Your task to perform on an android device: Clear the shopping cart on newegg.com. Search for "logitech g933" on newegg.com, select the first entry, add it to the cart, then select checkout. Image 0: 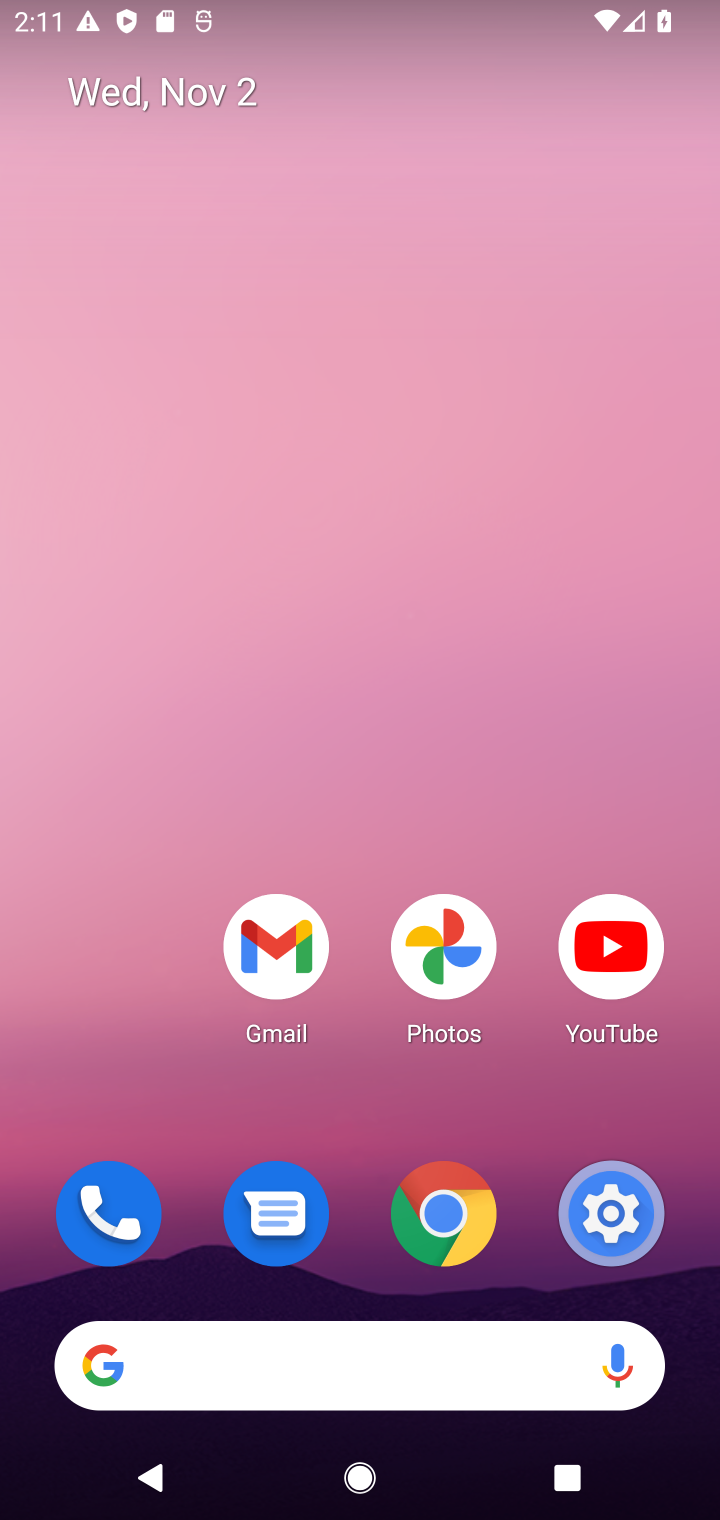
Step 0: click (449, 1223)
Your task to perform on an android device: Clear the shopping cart on newegg.com. Search for "logitech g933" on newegg.com, select the first entry, add it to the cart, then select checkout. Image 1: 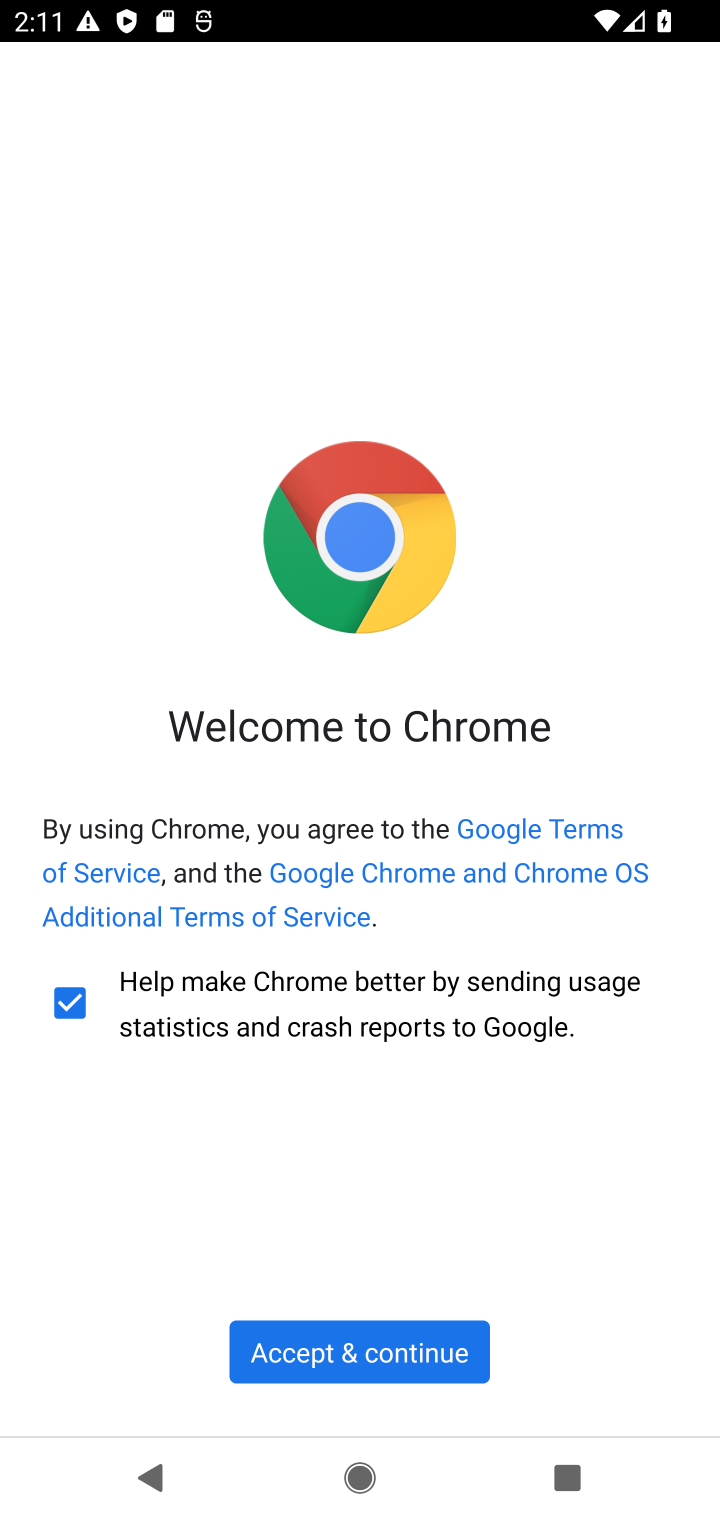
Step 1: click (357, 1358)
Your task to perform on an android device: Clear the shopping cart on newegg.com. Search for "logitech g933" on newegg.com, select the first entry, add it to the cart, then select checkout. Image 2: 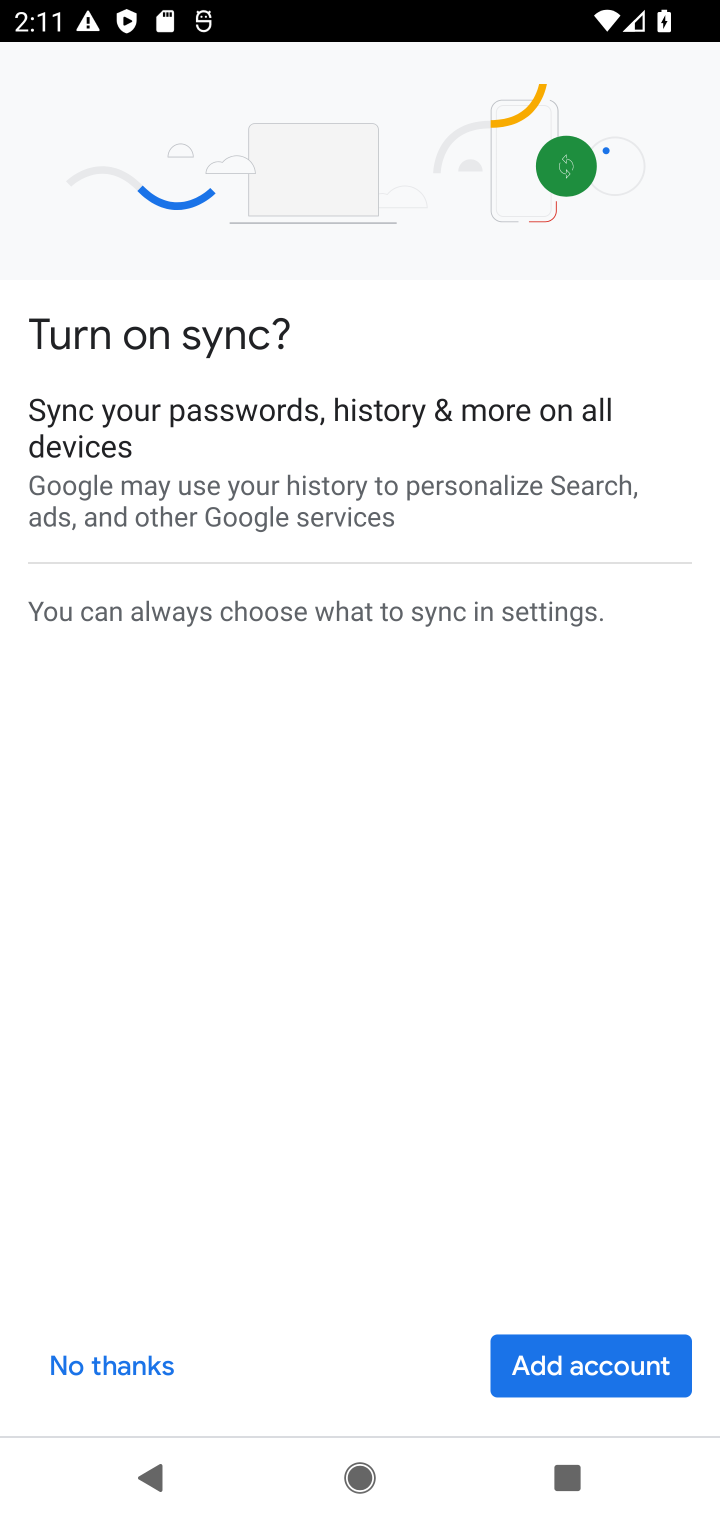
Step 2: click (94, 1368)
Your task to perform on an android device: Clear the shopping cart on newegg.com. Search for "logitech g933" on newegg.com, select the first entry, add it to the cart, then select checkout. Image 3: 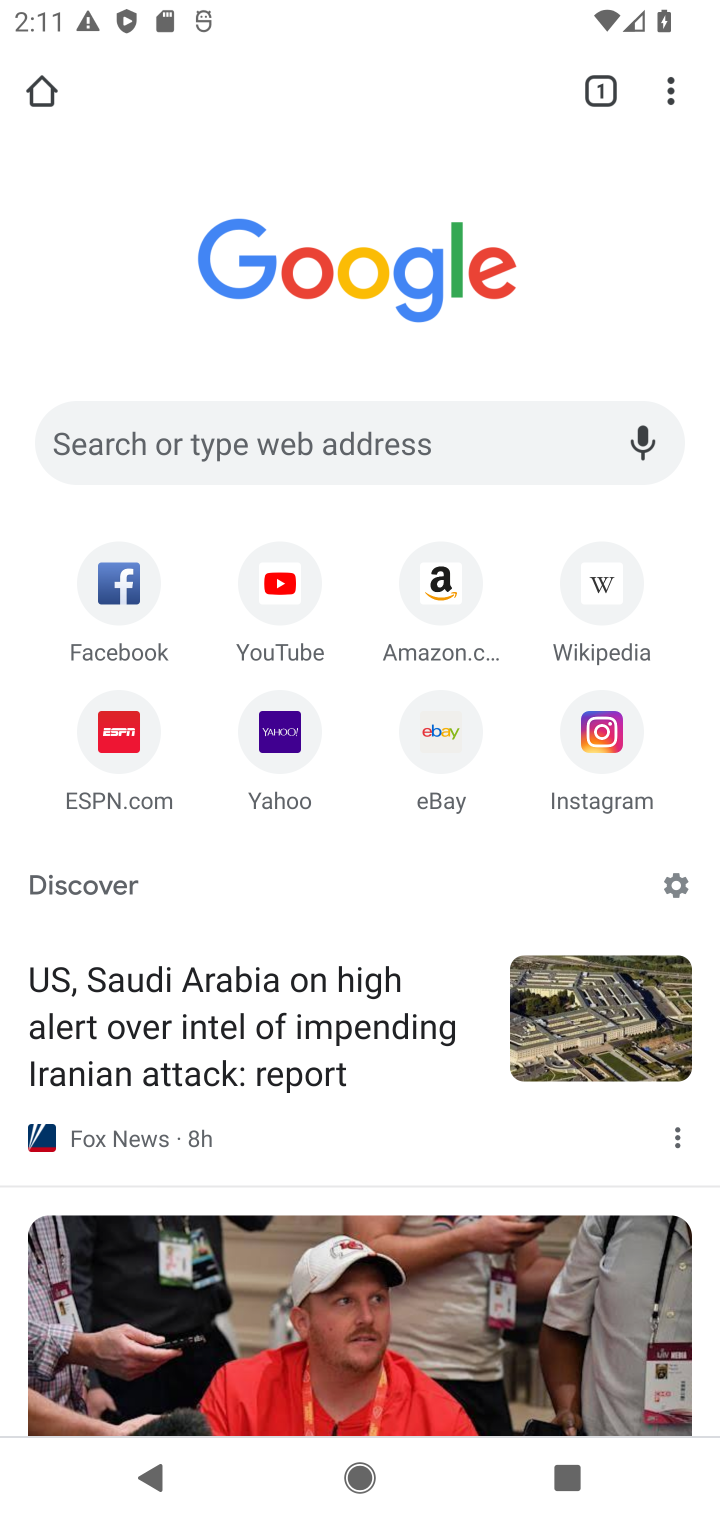
Step 3: click (334, 438)
Your task to perform on an android device: Clear the shopping cart on newegg.com. Search for "logitech g933" on newegg.com, select the first entry, add it to the cart, then select checkout. Image 4: 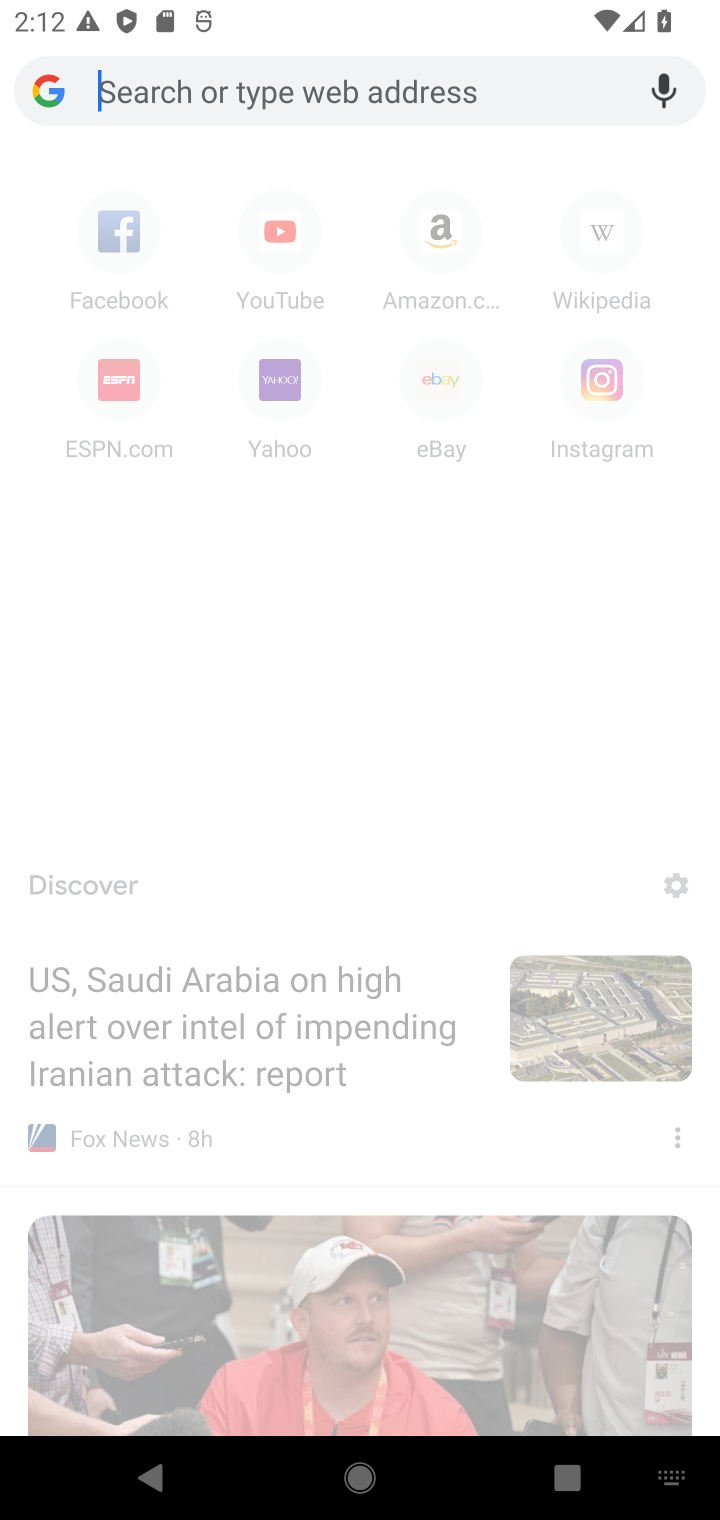
Step 4: type "newegg.com"
Your task to perform on an android device: Clear the shopping cart on newegg.com. Search for "logitech g933" on newegg.com, select the first entry, add it to the cart, then select checkout. Image 5: 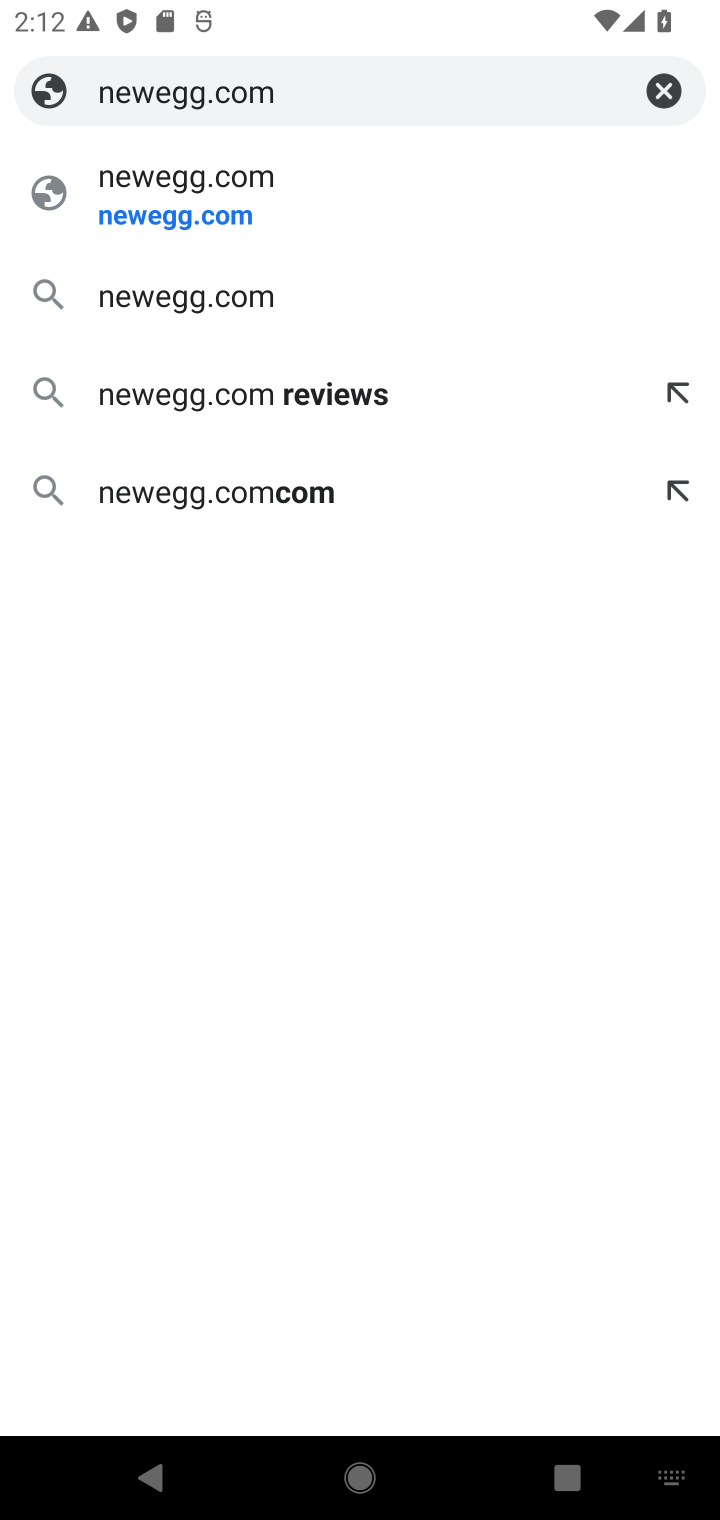
Step 5: click (238, 182)
Your task to perform on an android device: Clear the shopping cart on newegg.com. Search for "logitech g933" on newegg.com, select the first entry, add it to the cart, then select checkout. Image 6: 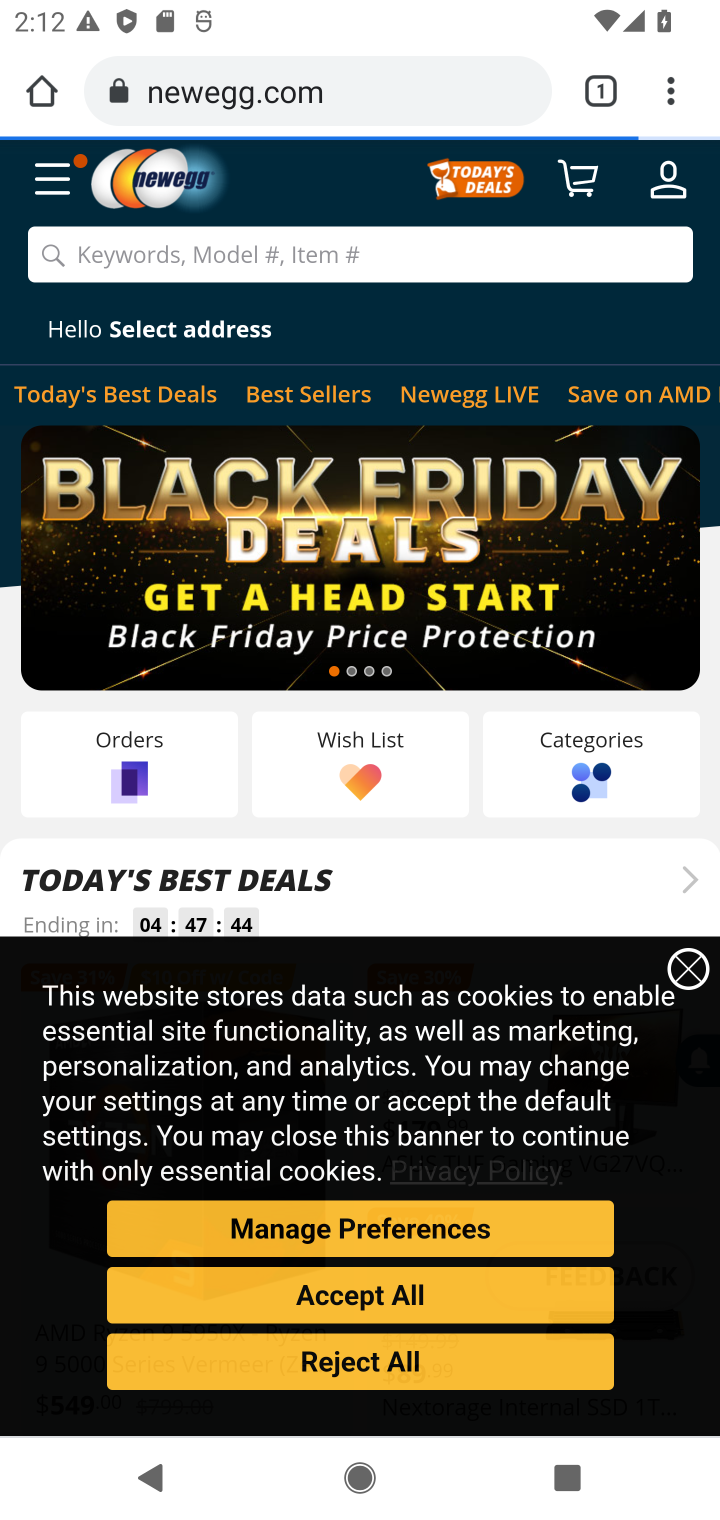
Step 6: click (576, 187)
Your task to perform on an android device: Clear the shopping cart on newegg.com. Search for "logitech g933" on newegg.com, select the first entry, add it to the cart, then select checkout. Image 7: 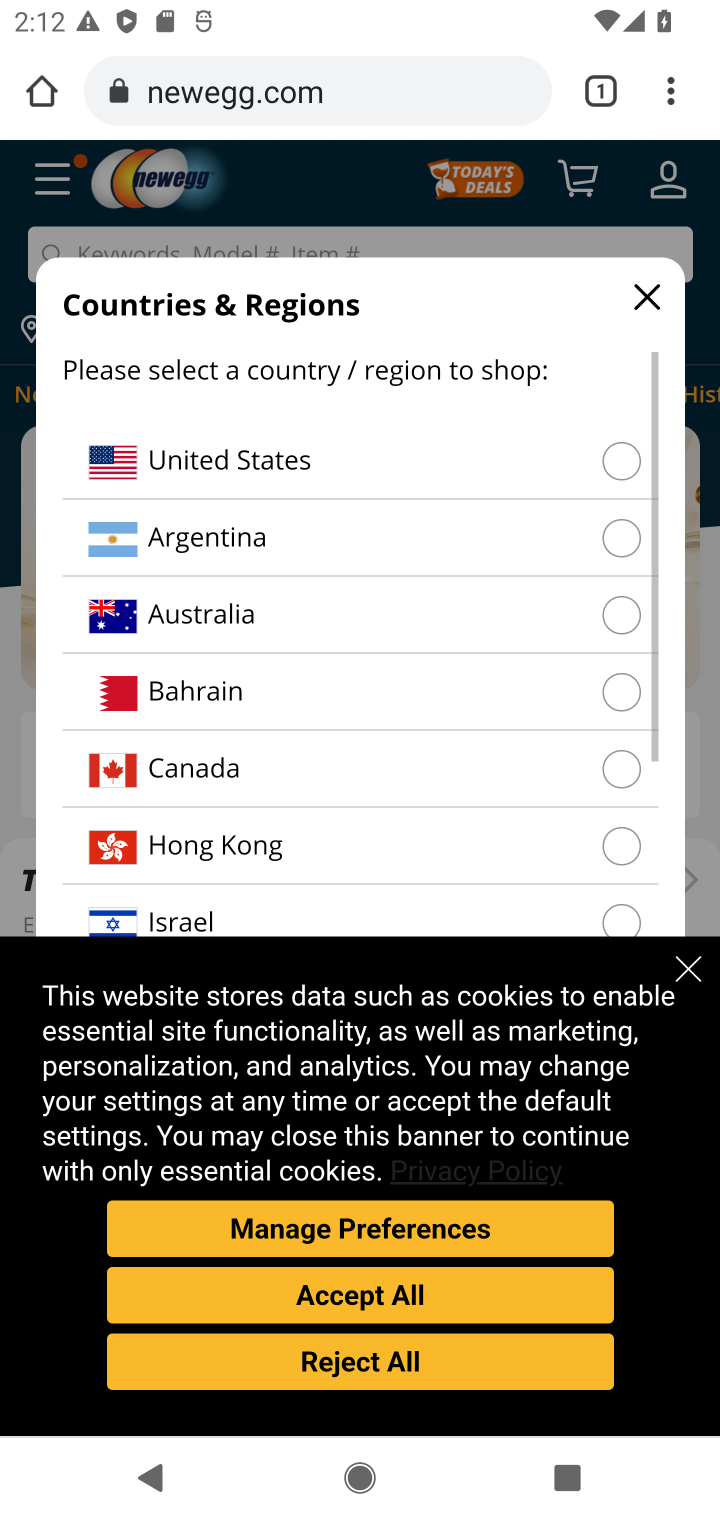
Step 7: click (653, 304)
Your task to perform on an android device: Clear the shopping cart on newegg.com. Search for "logitech g933" on newegg.com, select the first entry, add it to the cart, then select checkout. Image 8: 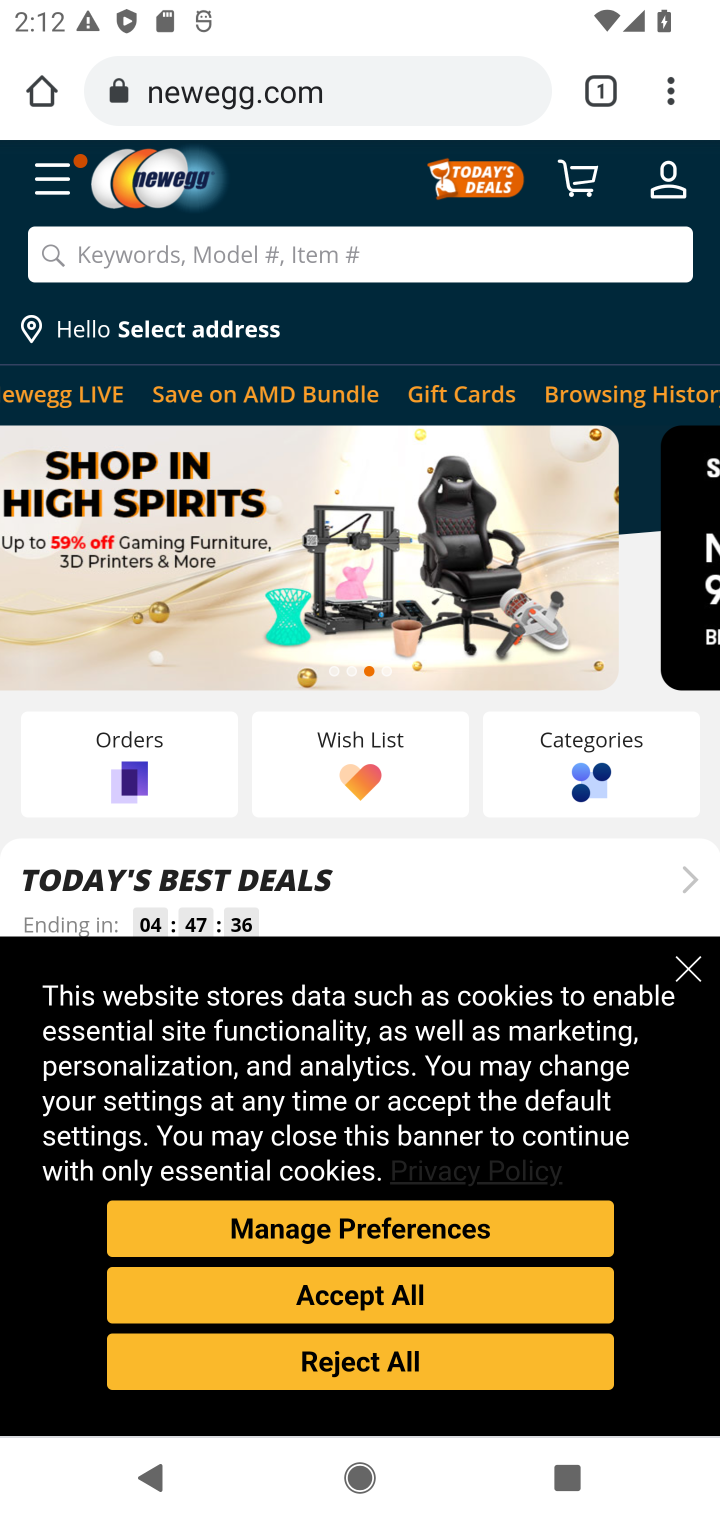
Step 8: click (412, 1299)
Your task to perform on an android device: Clear the shopping cart on newegg.com. Search for "logitech g933" on newegg.com, select the first entry, add it to the cart, then select checkout. Image 9: 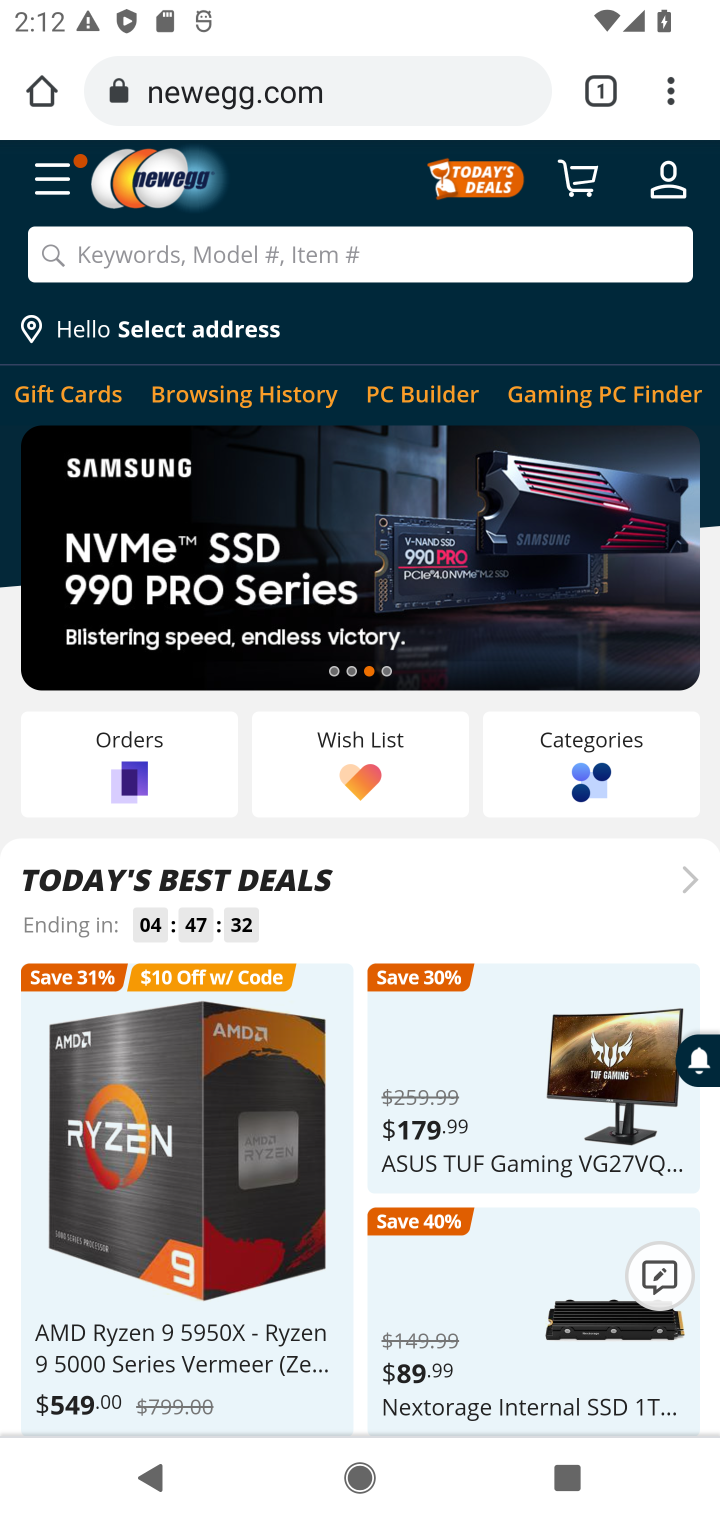
Step 9: click (580, 185)
Your task to perform on an android device: Clear the shopping cart on newegg.com. Search for "logitech g933" on newegg.com, select the first entry, add it to the cart, then select checkout. Image 10: 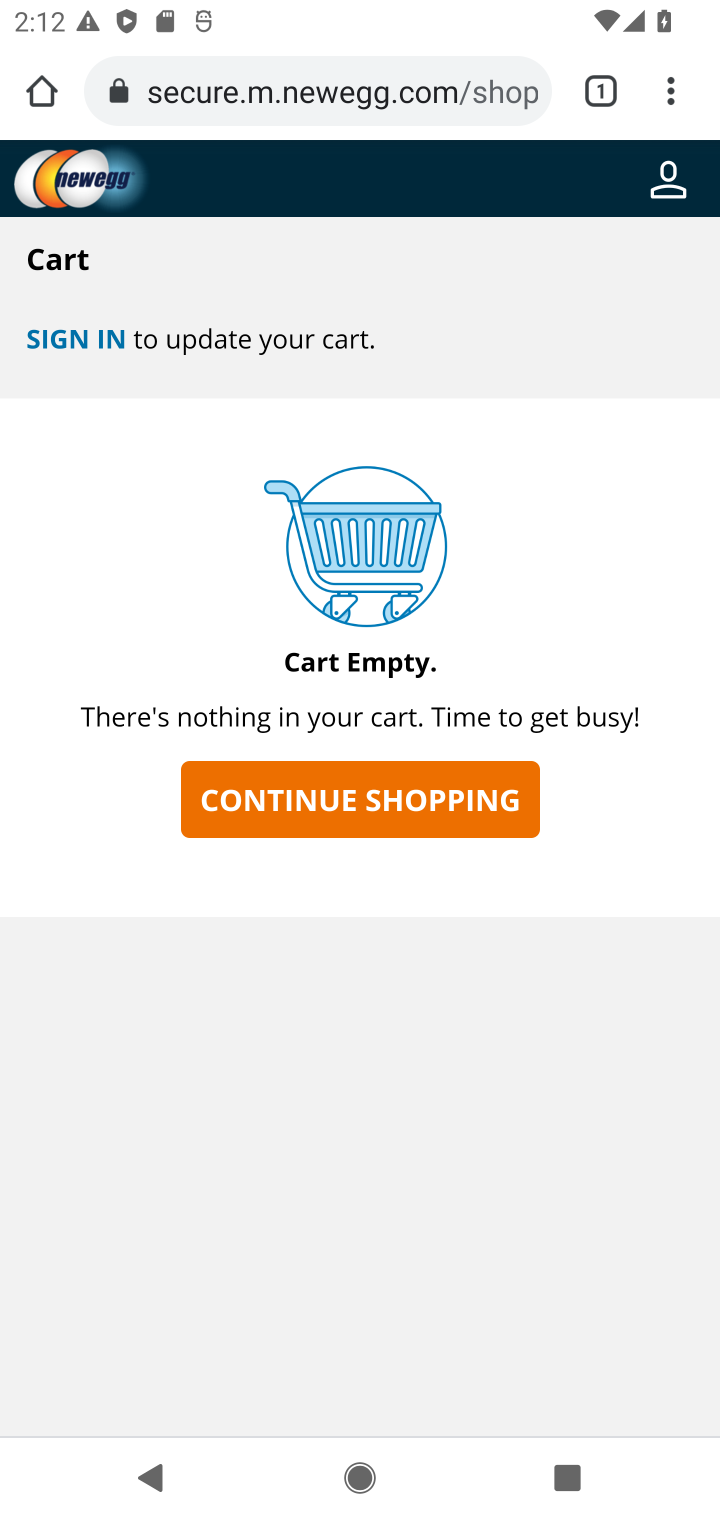
Step 10: click (285, 809)
Your task to perform on an android device: Clear the shopping cart on newegg.com. Search for "logitech g933" on newegg.com, select the first entry, add it to the cart, then select checkout. Image 11: 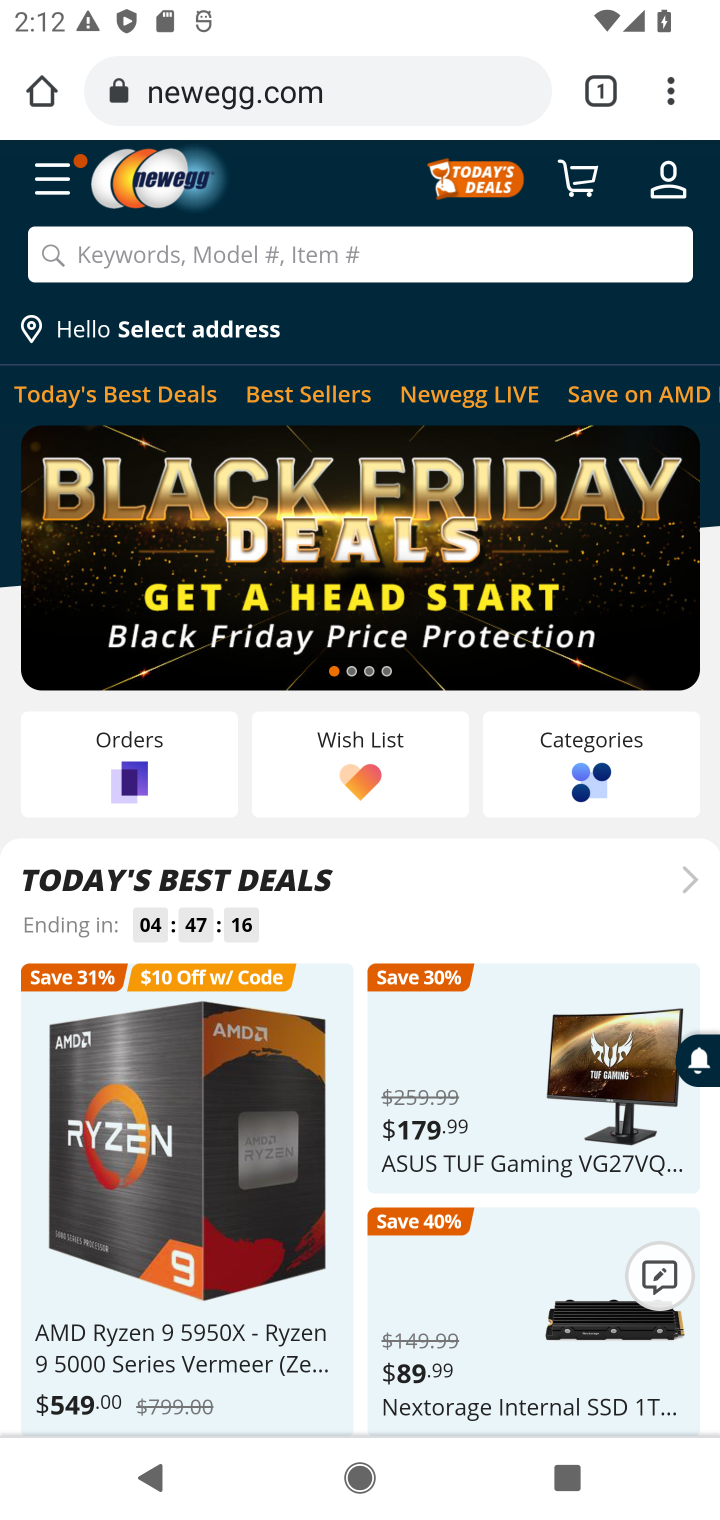
Step 11: click (328, 256)
Your task to perform on an android device: Clear the shopping cart on newegg.com. Search for "logitech g933" on newegg.com, select the first entry, add it to the cart, then select checkout. Image 12: 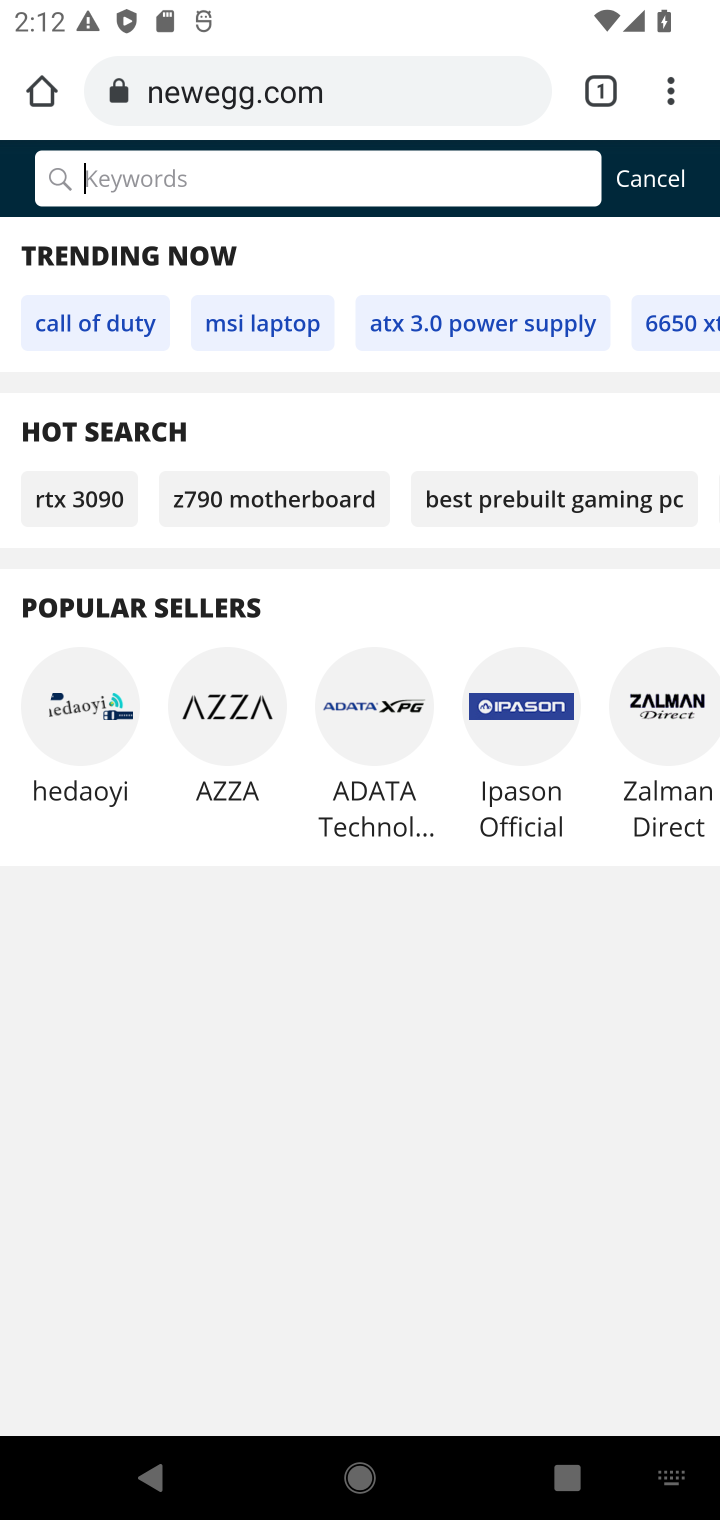
Step 12: type "logitech g933"
Your task to perform on an android device: Clear the shopping cart on newegg.com. Search for "logitech g933" on newegg.com, select the first entry, add it to the cart, then select checkout. Image 13: 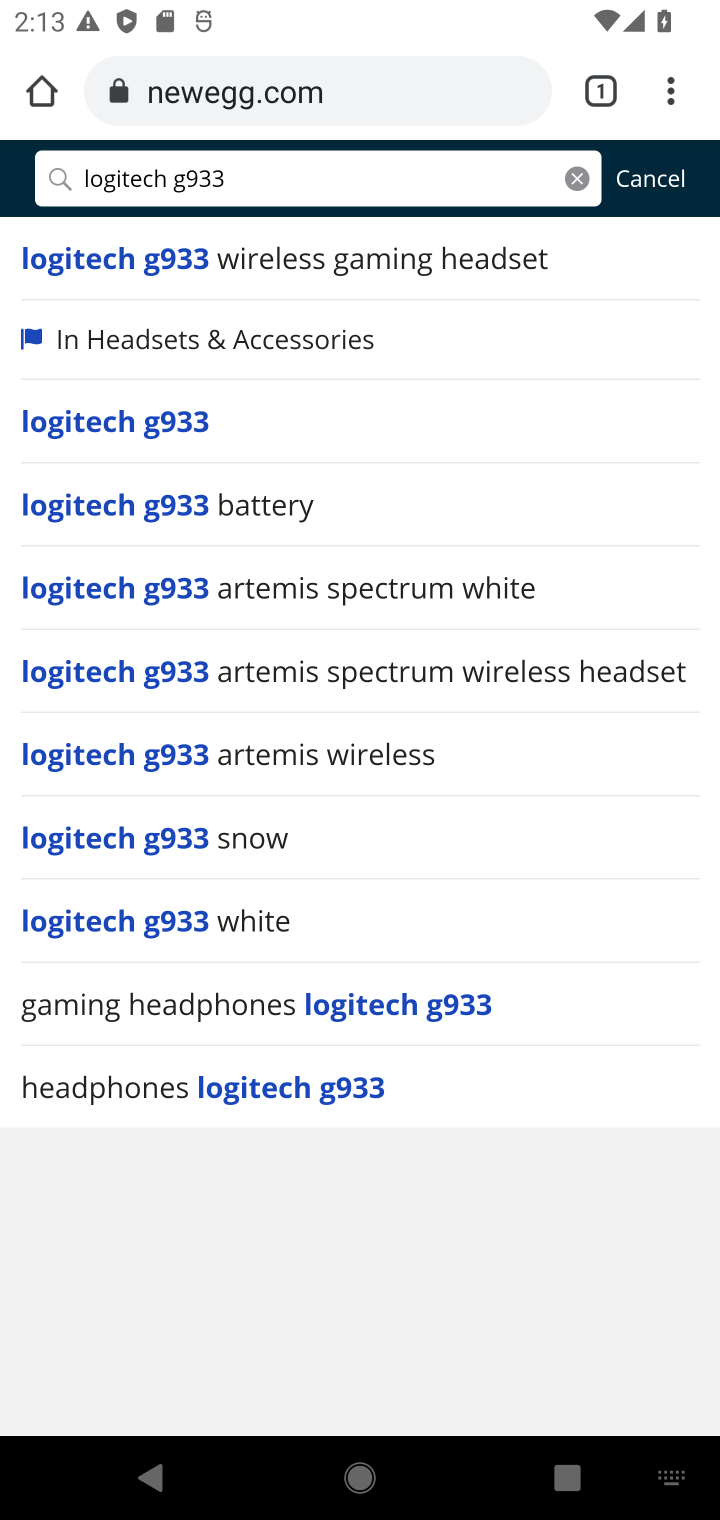
Step 13: press enter
Your task to perform on an android device: Clear the shopping cart on newegg.com. Search for "logitech g933" on newegg.com, select the first entry, add it to the cart, then select checkout. Image 14: 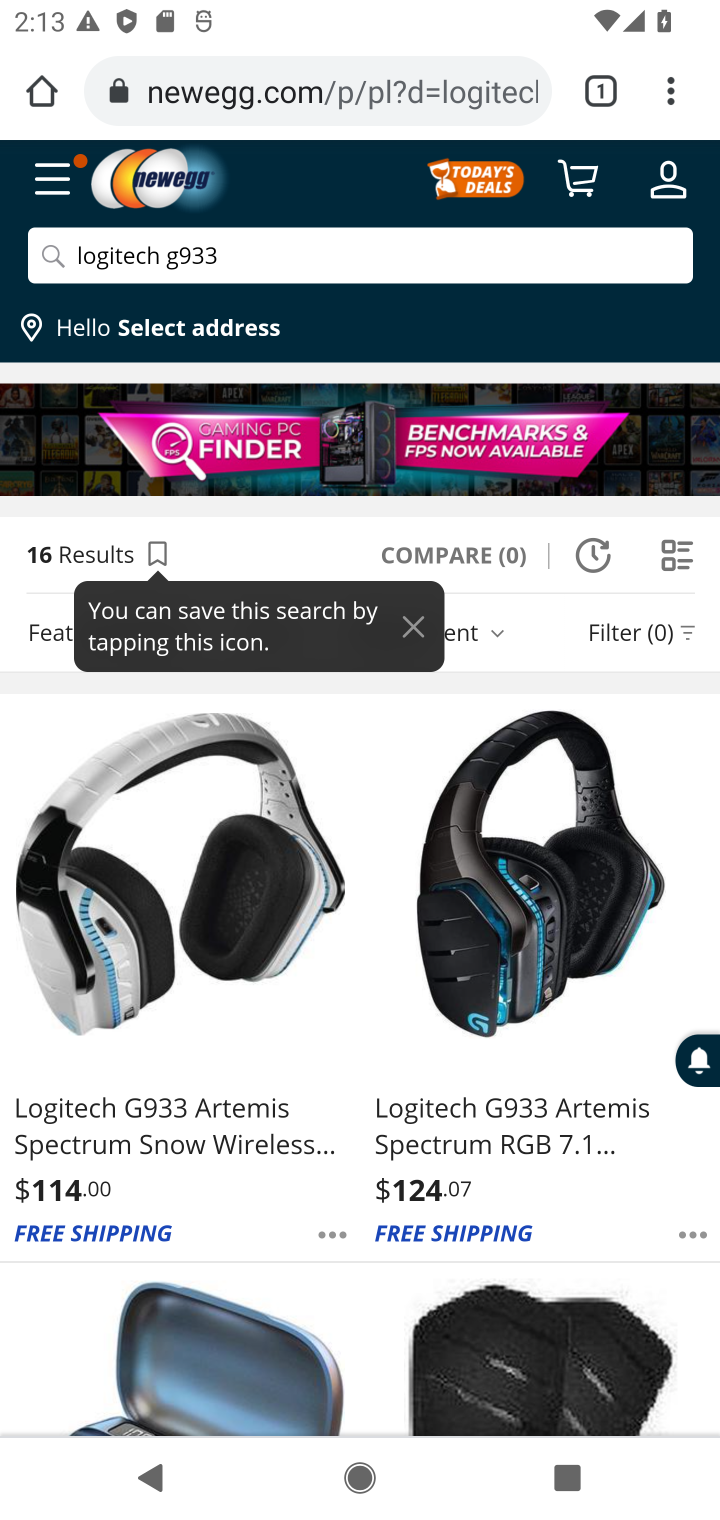
Step 14: click (197, 948)
Your task to perform on an android device: Clear the shopping cart on newegg.com. Search for "logitech g933" on newegg.com, select the first entry, add it to the cart, then select checkout. Image 15: 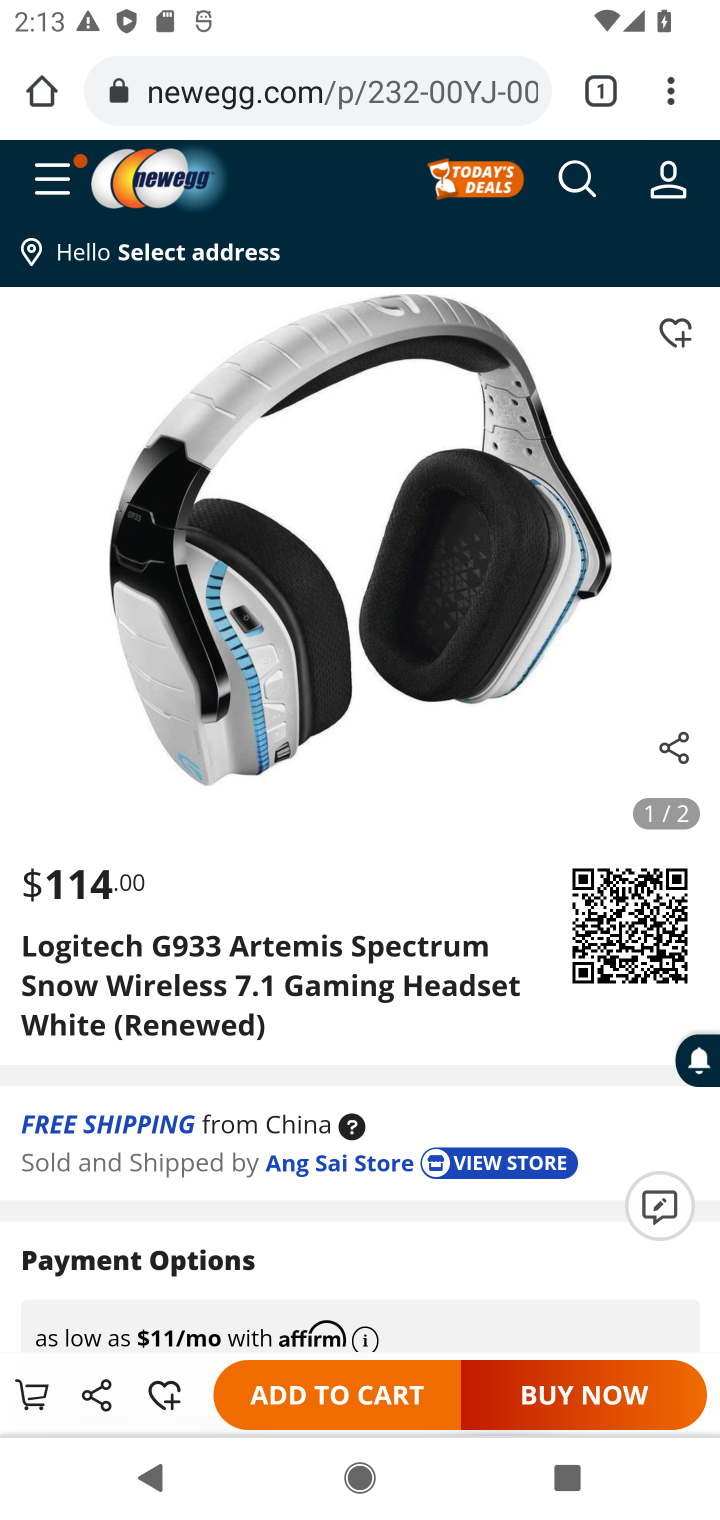
Step 15: click (362, 1394)
Your task to perform on an android device: Clear the shopping cart on newegg.com. Search for "logitech g933" on newegg.com, select the first entry, add it to the cart, then select checkout. Image 16: 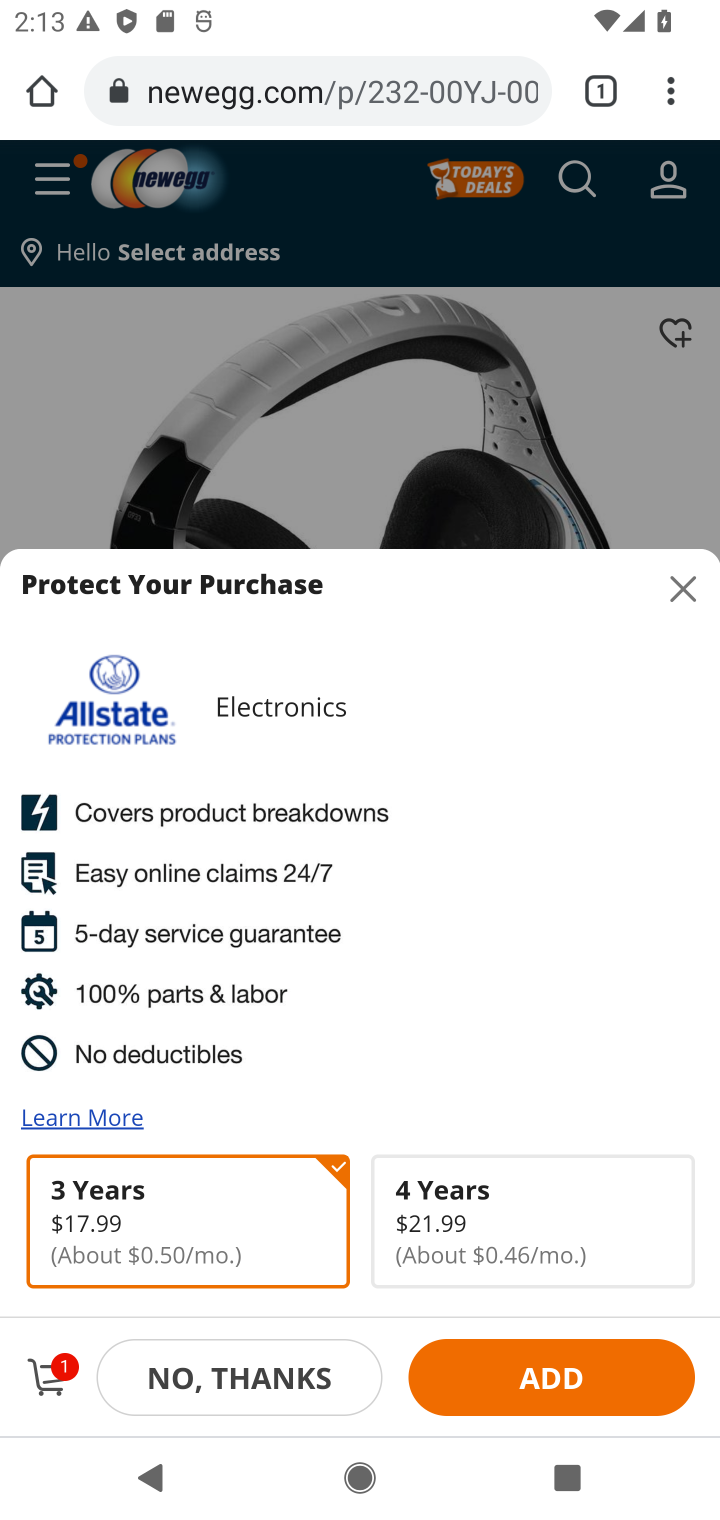
Step 16: click (45, 1369)
Your task to perform on an android device: Clear the shopping cart on newegg.com. Search for "logitech g933" on newegg.com, select the first entry, add it to the cart, then select checkout. Image 17: 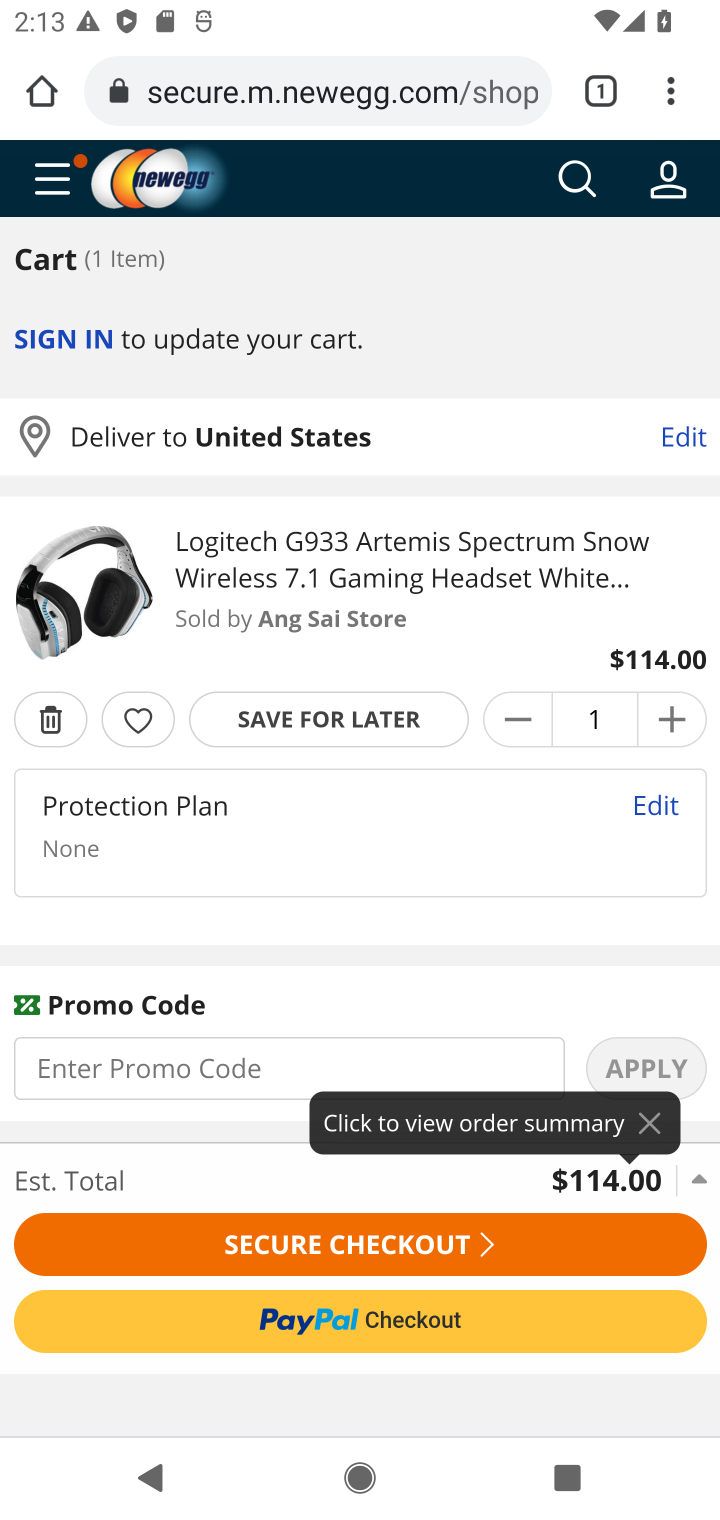
Step 17: click (367, 1239)
Your task to perform on an android device: Clear the shopping cart on newegg.com. Search for "logitech g933" on newegg.com, select the first entry, add it to the cart, then select checkout. Image 18: 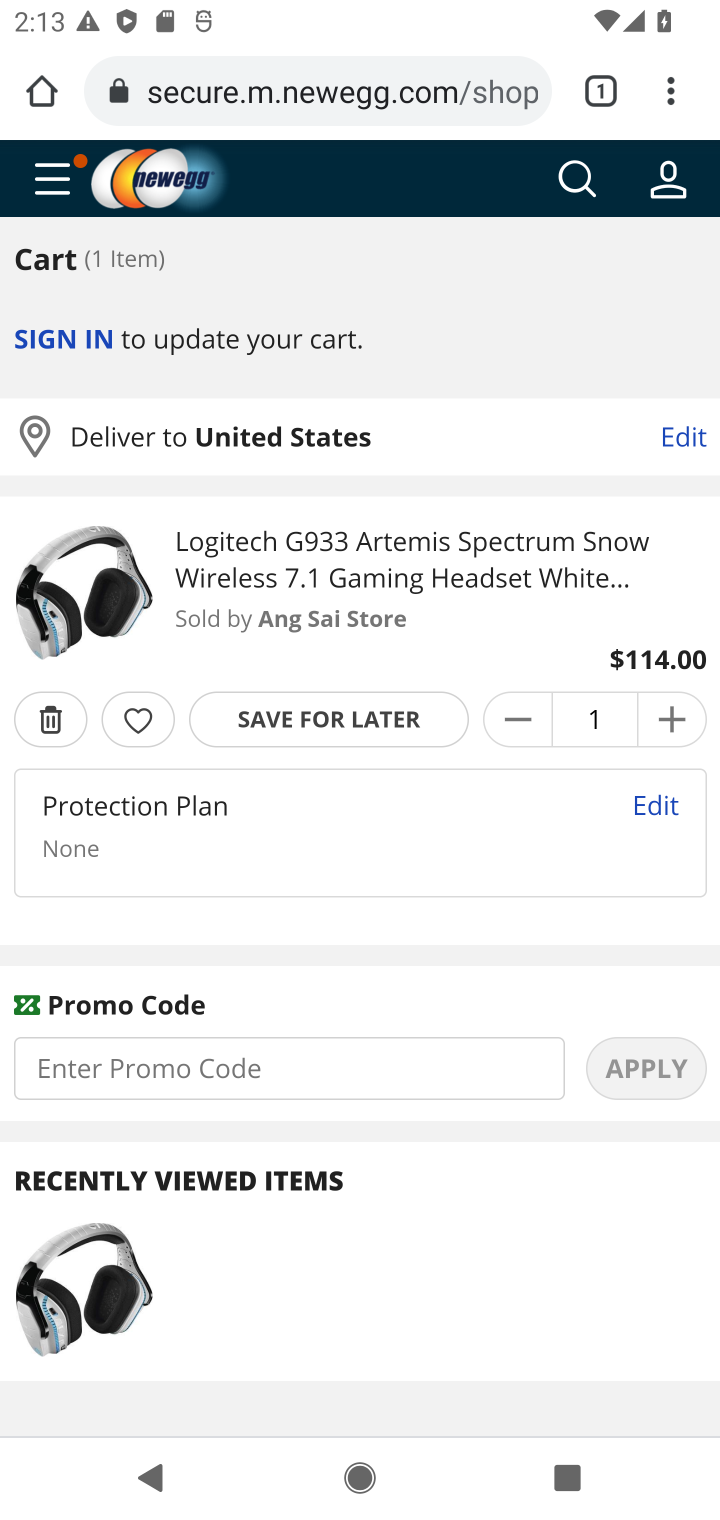
Step 18: drag from (367, 1239) to (345, 830)
Your task to perform on an android device: Clear the shopping cart on newegg.com. Search for "logitech g933" on newegg.com, select the first entry, add it to the cart, then select checkout. Image 19: 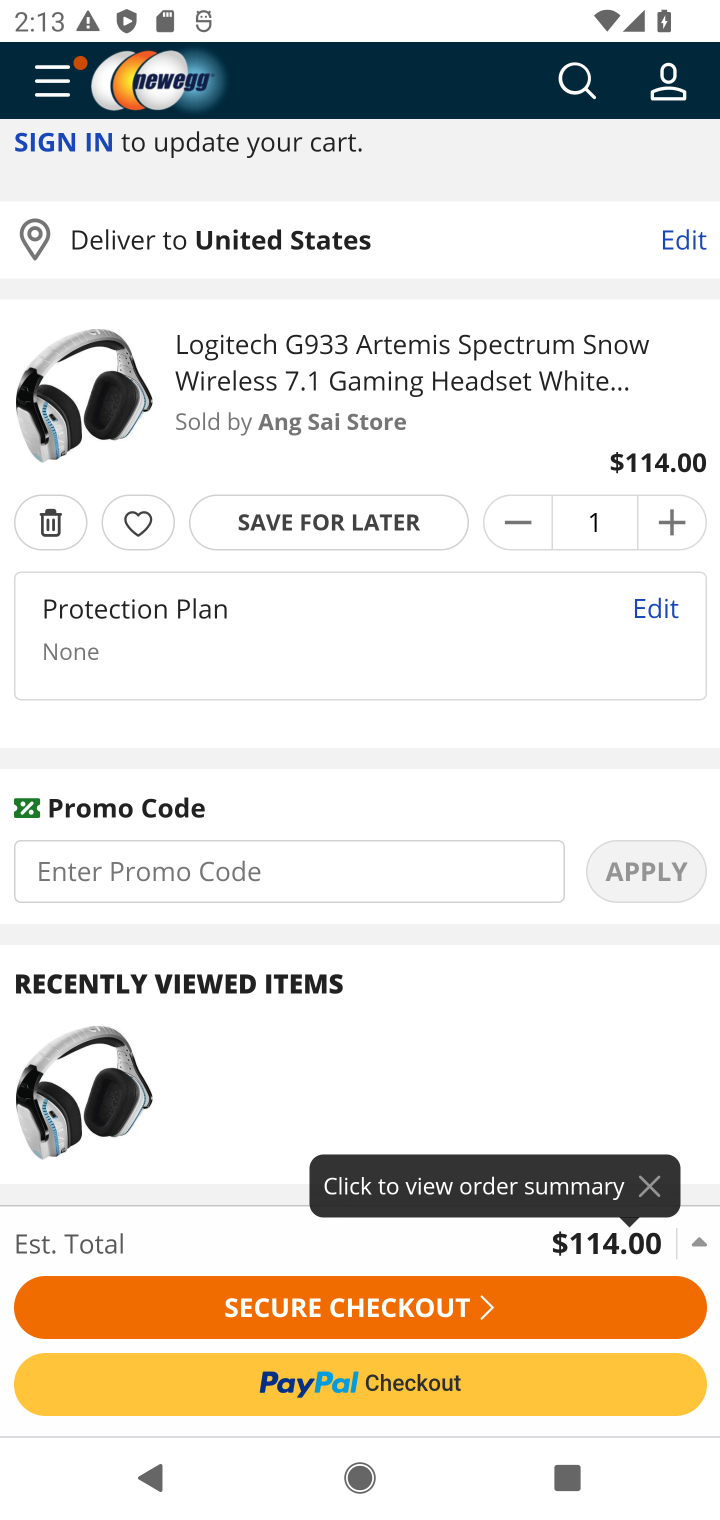
Step 19: click (329, 1308)
Your task to perform on an android device: Clear the shopping cart on newegg.com. Search for "logitech g933" on newegg.com, select the first entry, add it to the cart, then select checkout. Image 20: 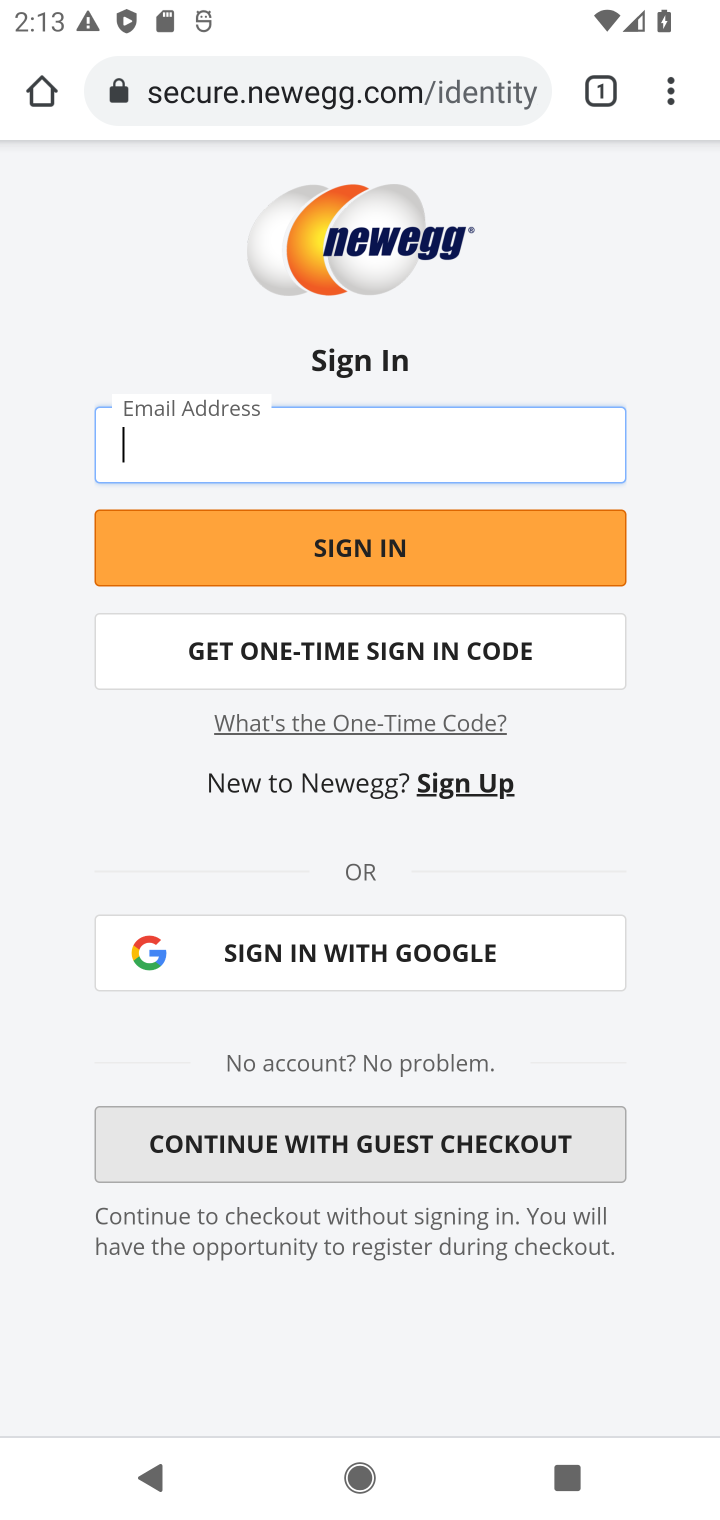
Step 20: task complete